Your task to perform on an android device: Go to wifi settings Image 0: 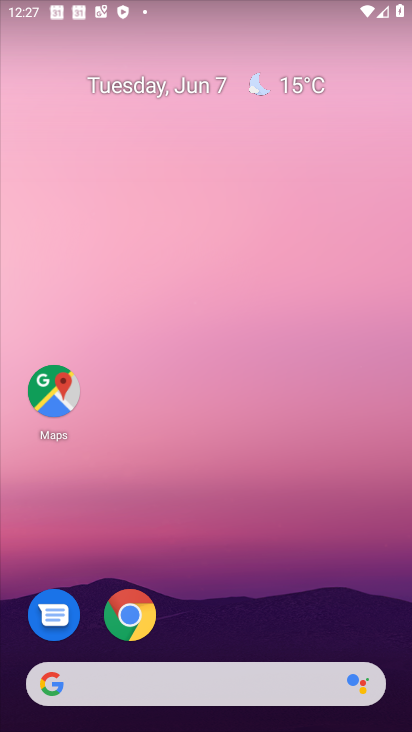
Step 0: drag from (194, 622) to (195, 206)
Your task to perform on an android device: Go to wifi settings Image 1: 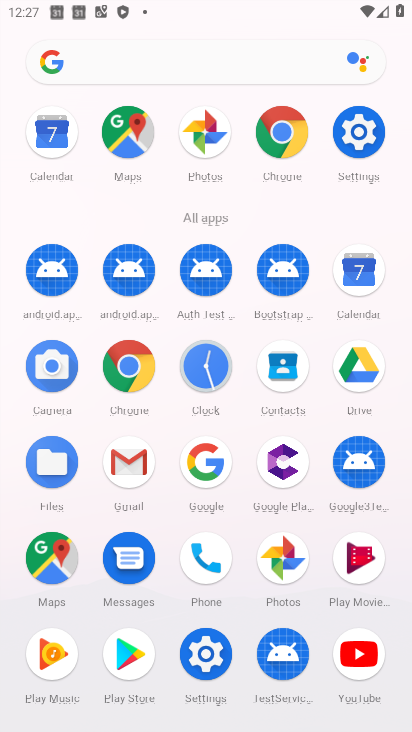
Step 1: click (359, 131)
Your task to perform on an android device: Go to wifi settings Image 2: 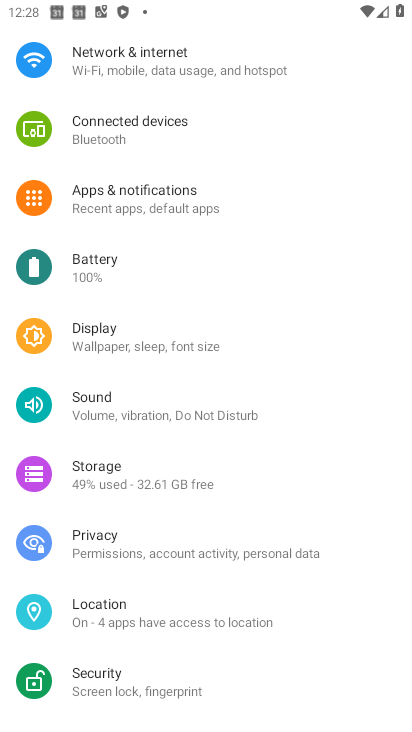
Step 2: click (113, 58)
Your task to perform on an android device: Go to wifi settings Image 3: 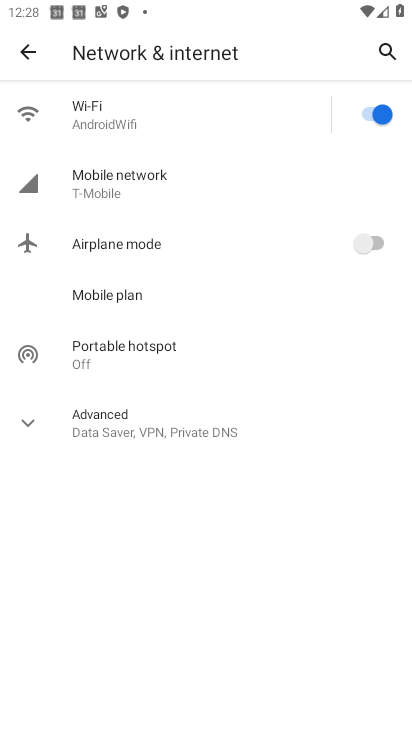
Step 3: click (93, 113)
Your task to perform on an android device: Go to wifi settings Image 4: 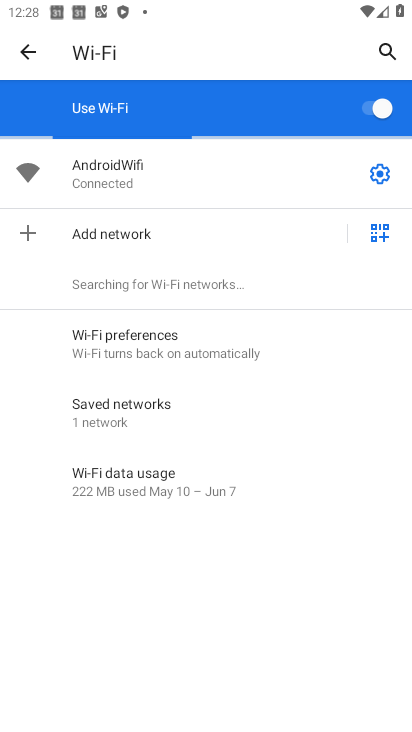
Step 4: task complete